Your task to perform on an android device: open app "Lyft - Rideshare, Bikes, Scooters & Transit" (install if not already installed) Image 0: 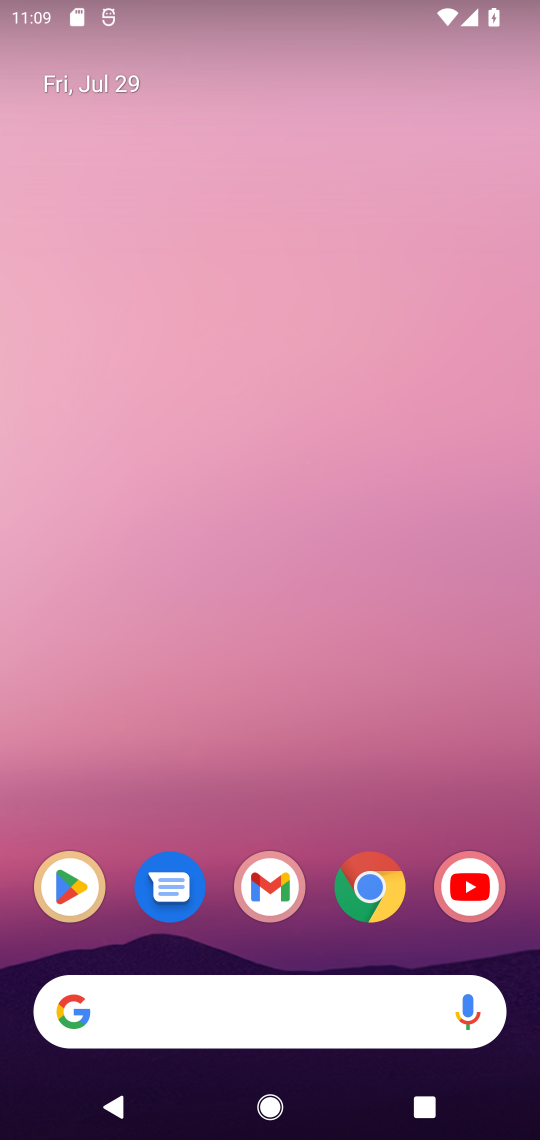
Step 0: drag from (164, 1004) to (261, 269)
Your task to perform on an android device: open app "Lyft - Rideshare, Bikes, Scooters & Transit" (install if not already installed) Image 1: 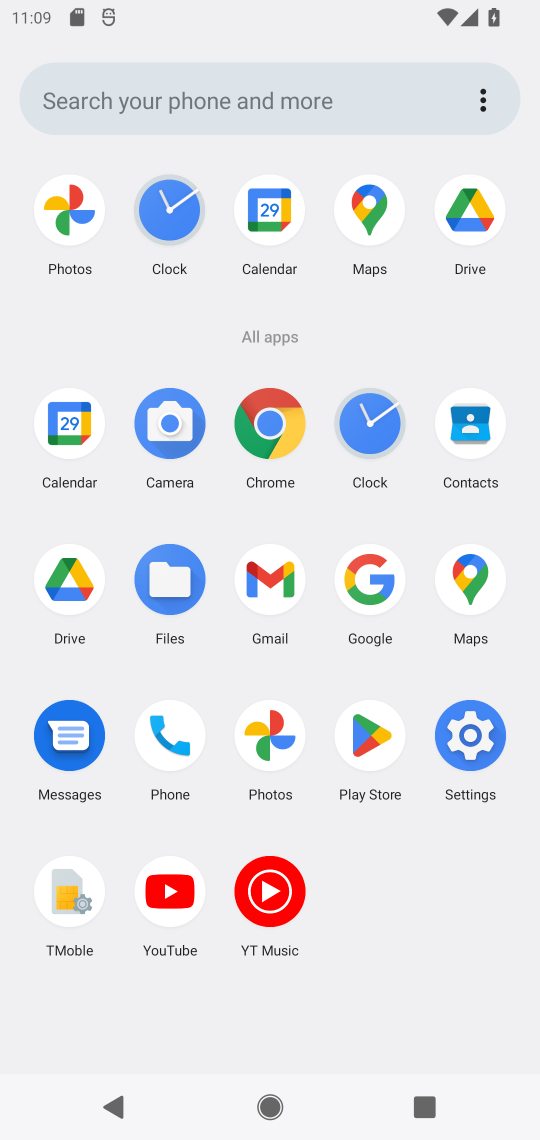
Step 1: click (365, 730)
Your task to perform on an android device: open app "Lyft - Rideshare, Bikes, Scooters & Transit" (install if not already installed) Image 2: 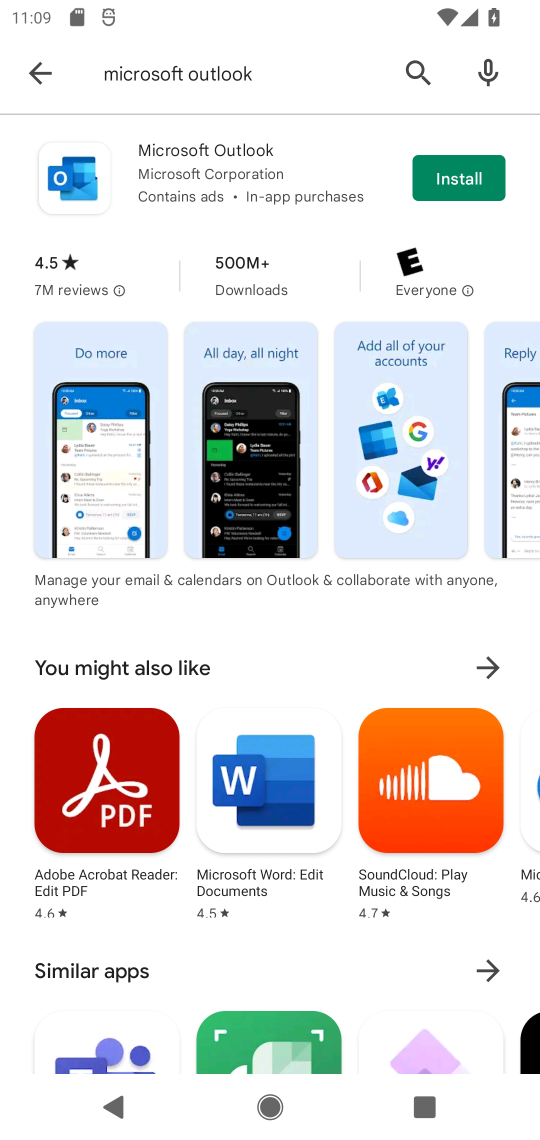
Step 2: click (415, 62)
Your task to perform on an android device: open app "Lyft - Rideshare, Bikes, Scooters & Transit" (install if not already installed) Image 3: 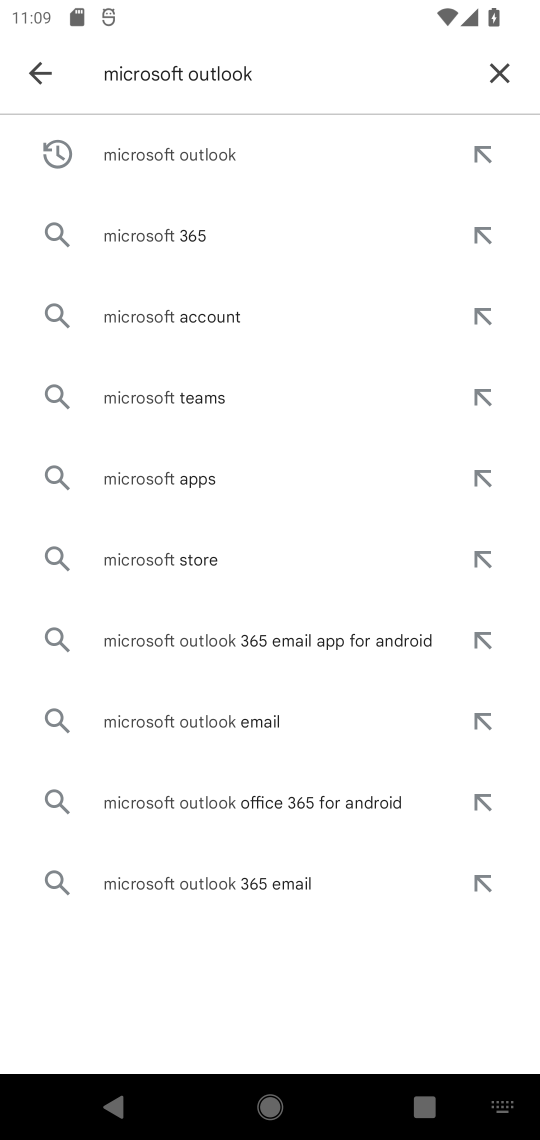
Step 3: click (498, 62)
Your task to perform on an android device: open app "Lyft - Rideshare, Bikes, Scooters & Transit" (install if not already installed) Image 4: 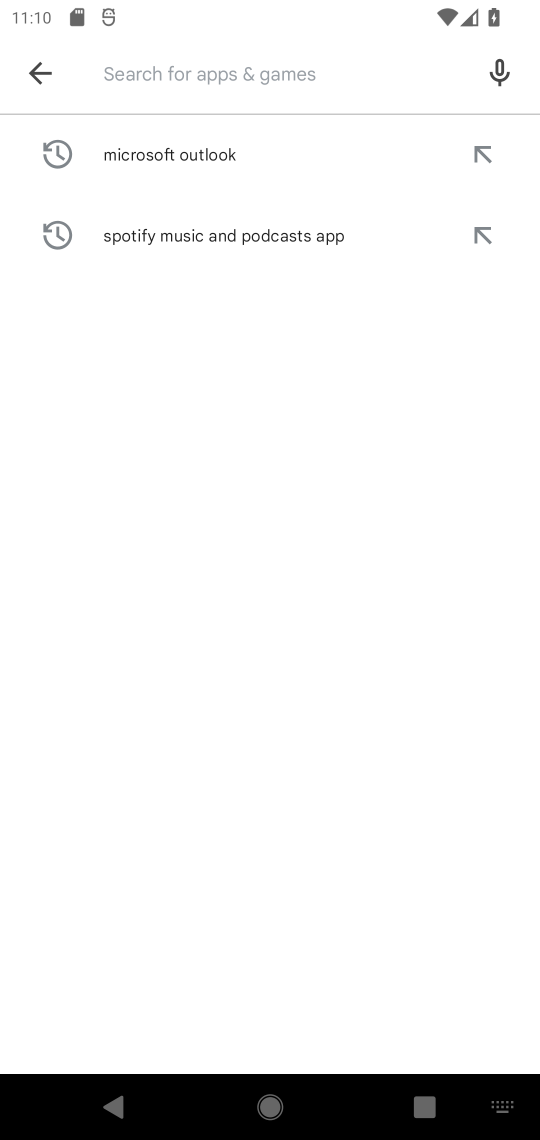
Step 4: type "Lyft - Rideshare, Bikes, Scooters & Transit"
Your task to perform on an android device: open app "Lyft - Rideshare, Bikes, Scooters & Transit" (install if not already installed) Image 5: 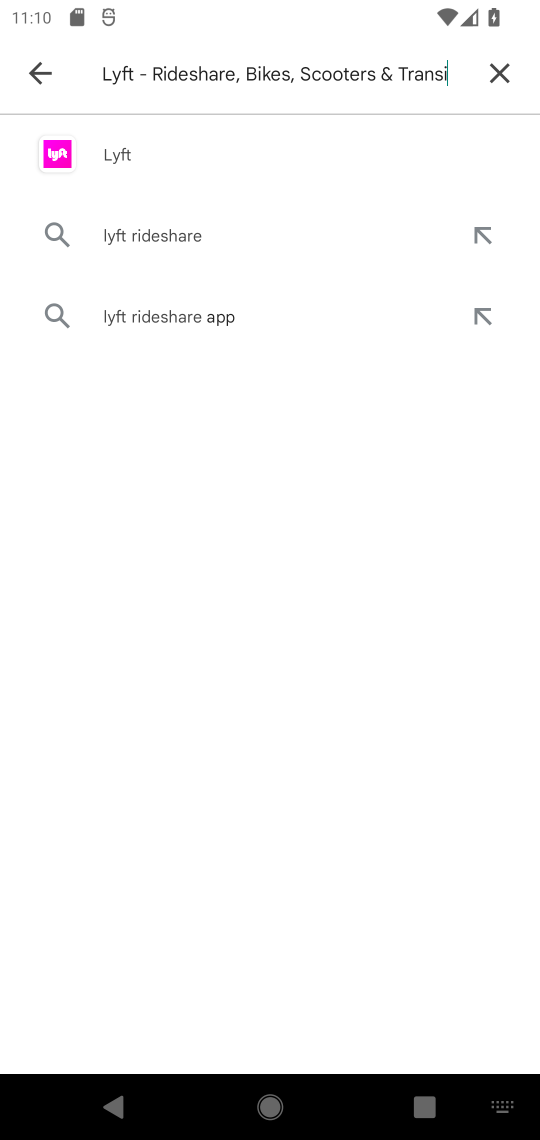
Step 5: type ""
Your task to perform on an android device: open app "Lyft - Rideshare, Bikes, Scooters & Transit" (install if not already installed) Image 6: 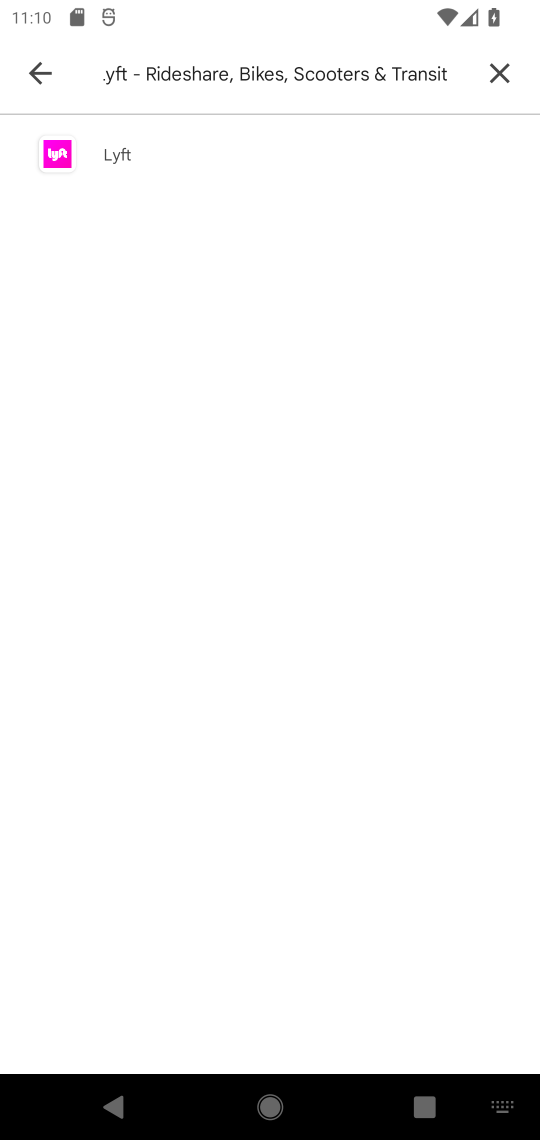
Step 6: click (112, 162)
Your task to perform on an android device: open app "Lyft - Rideshare, Bikes, Scooters & Transit" (install if not already installed) Image 7: 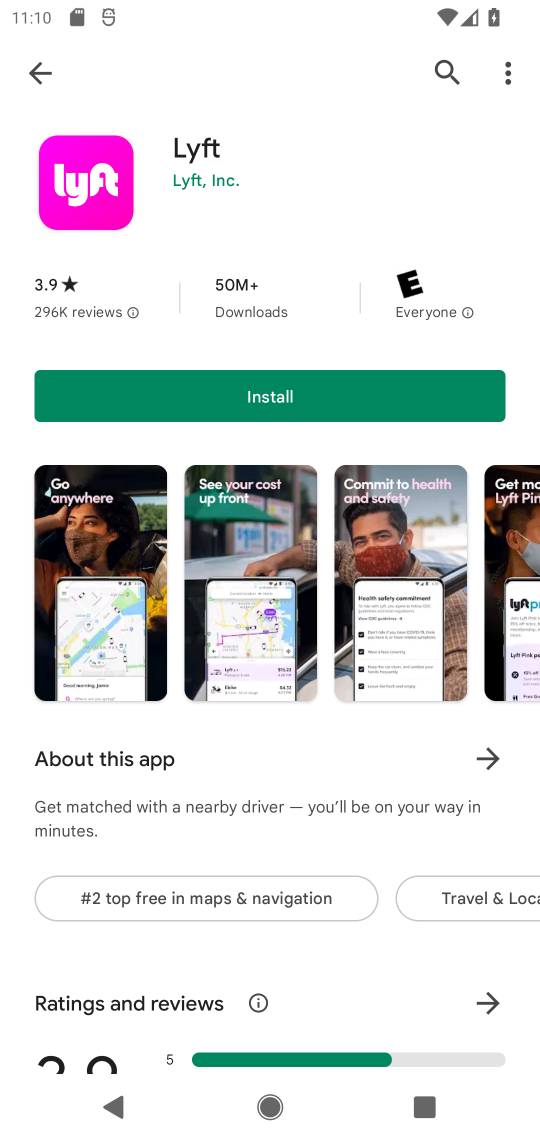
Step 7: click (269, 396)
Your task to perform on an android device: open app "Lyft - Rideshare, Bikes, Scooters & Transit" (install if not already installed) Image 8: 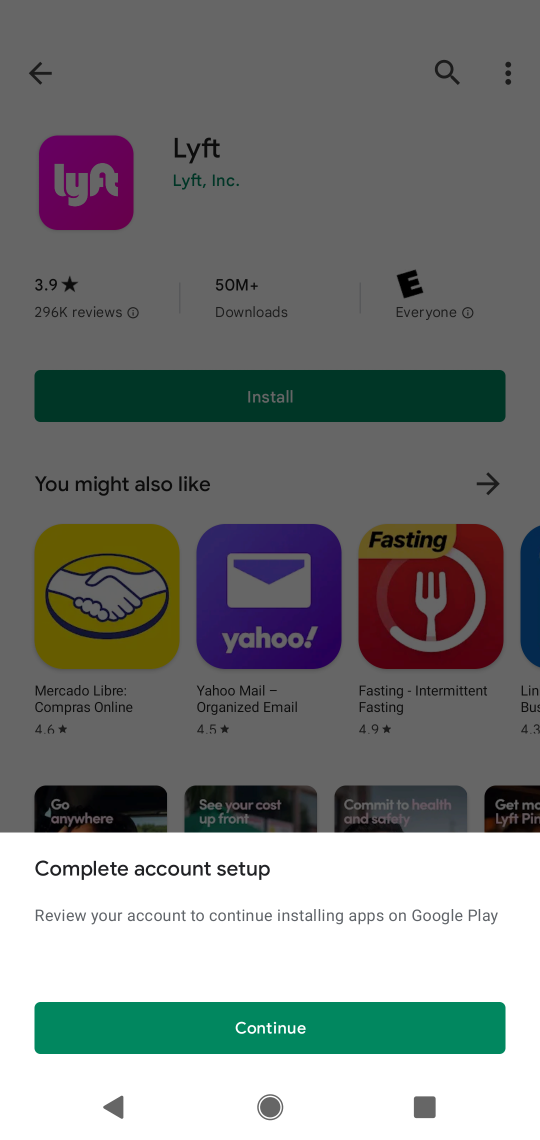
Step 8: click (285, 1025)
Your task to perform on an android device: open app "Lyft - Rideshare, Bikes, Scooters & Transit" (install if not already installed) Image 9: 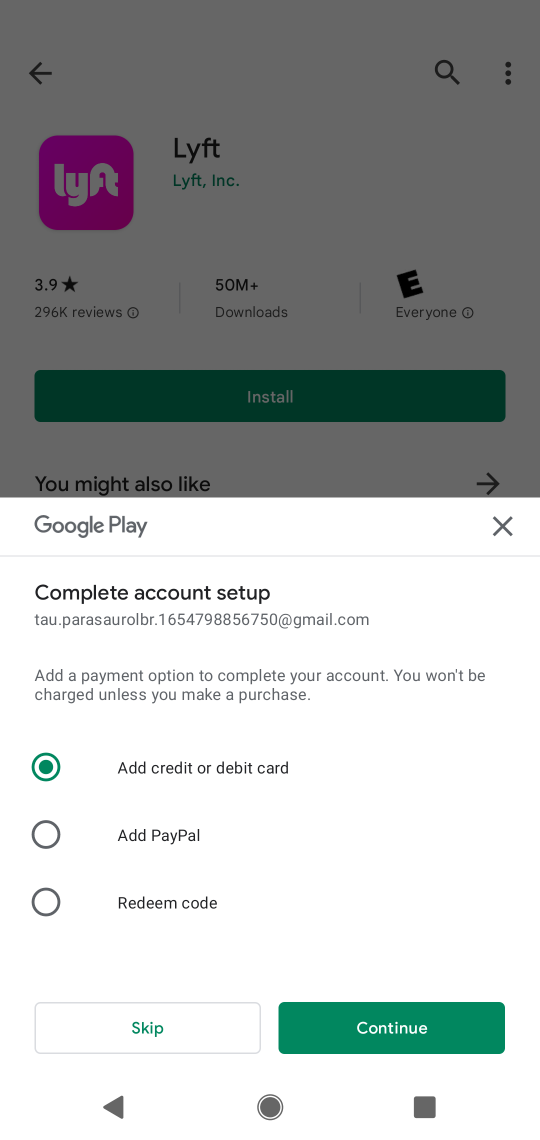
Step 9: click (141, 1030)
Your task to perform on an android device: open app "Lyft - Rideshare, Bikes, Scooters & Transit" (install if not already installed) Image 10: 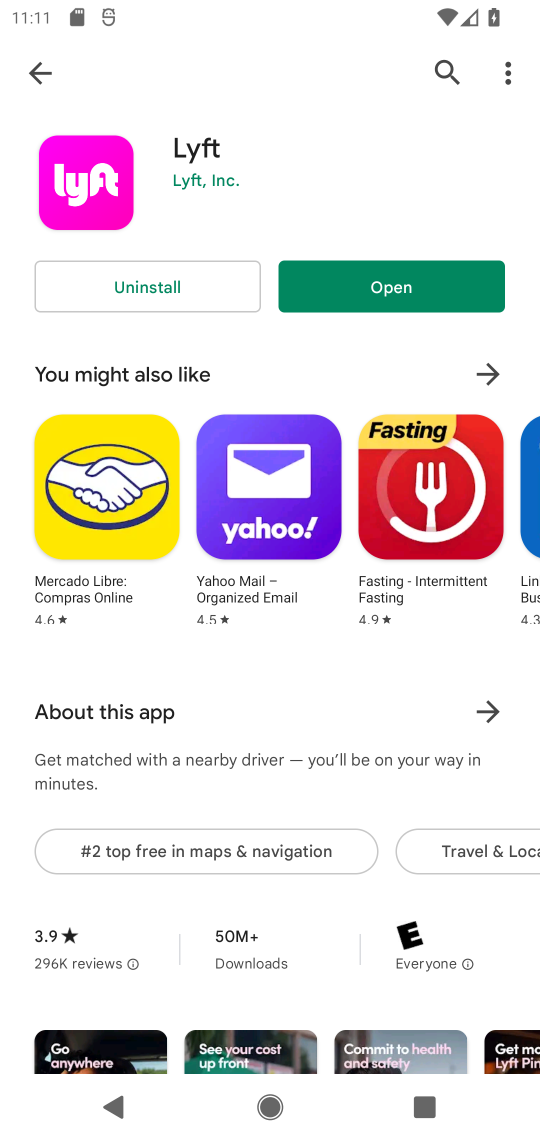
Step 10: click (410, 300)
Your task to perform on an android device: open app "Lyft - Rideshare, Bikes, Scooters & Transit" (install if not already installed) Image 11: 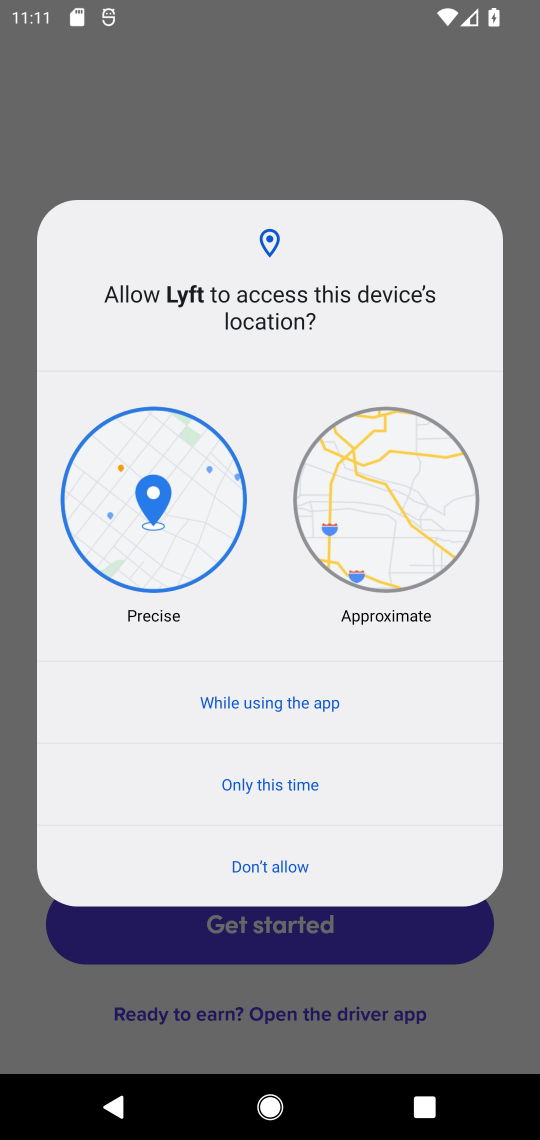
Step 11: task complete